Your task to perform on an android device: Go to Yahoo.com Image 0: 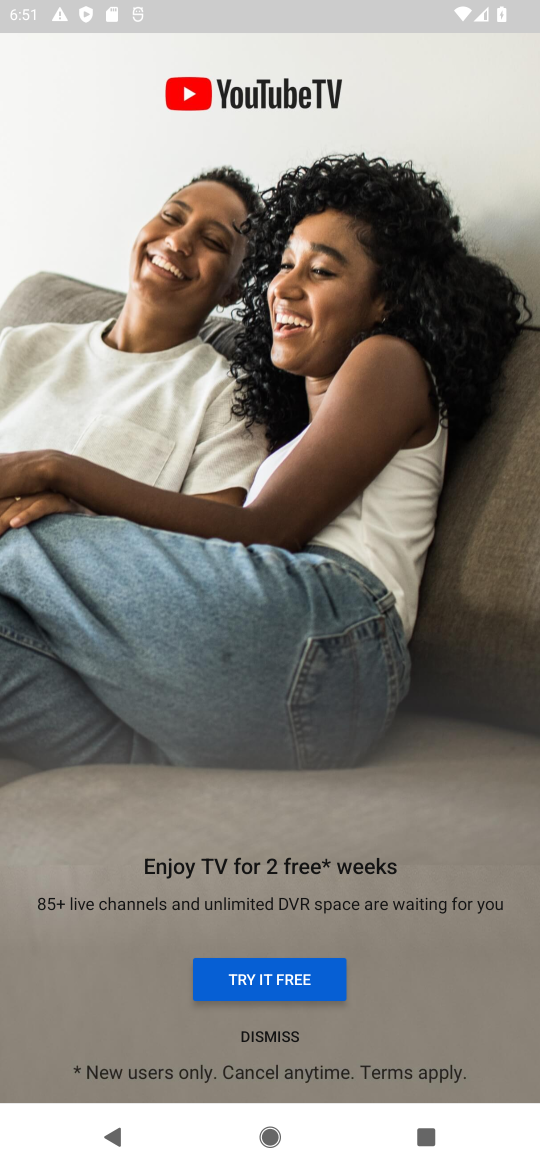
Step 0: press home button
Your task to perform on an android device: Go to Yahoo.com Image 1: 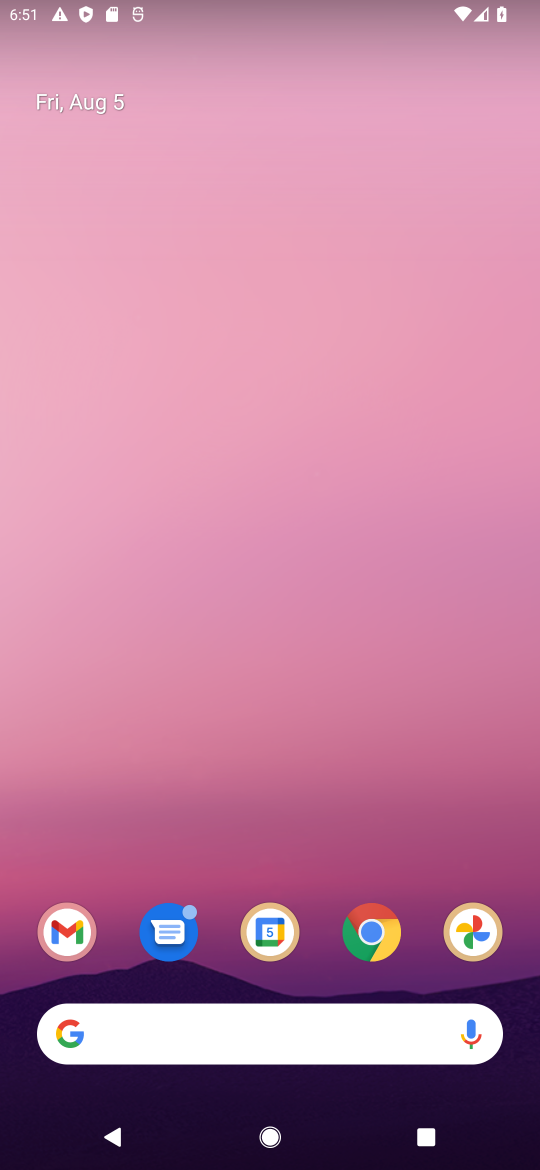
Step 1: click (373, 936)
Your task to perform on an android device: Go to Yahoo.com Image 2: 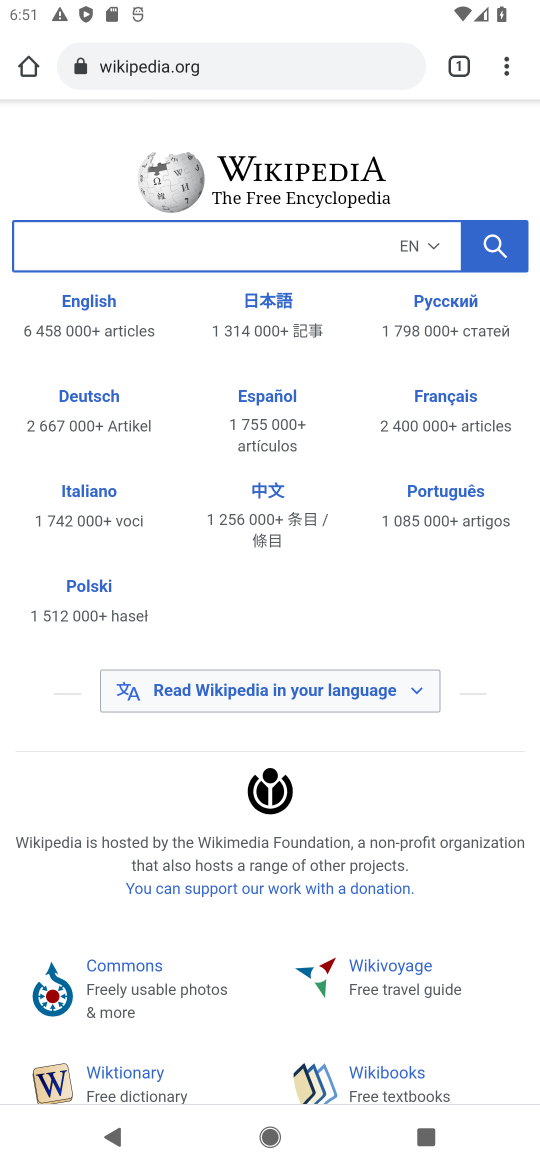
Step 2: click (326, 70)
Your task to perform on an android device: Go to Yahoo.com Image 3: 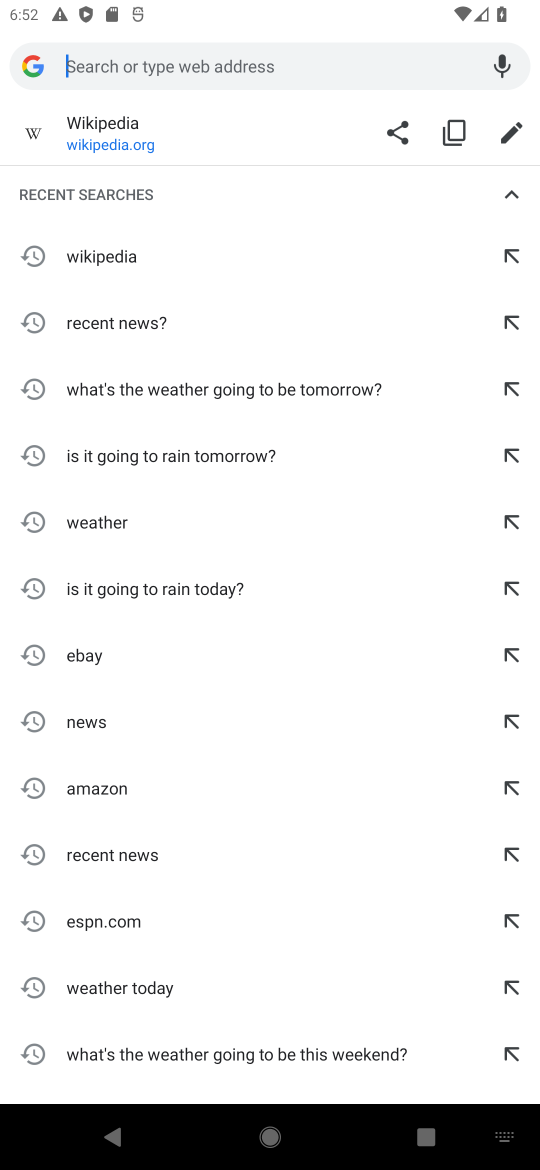
Step 3: type "Yahoo.com"
Your task to perform on an android device: Go to Yahoo.com Image 4: 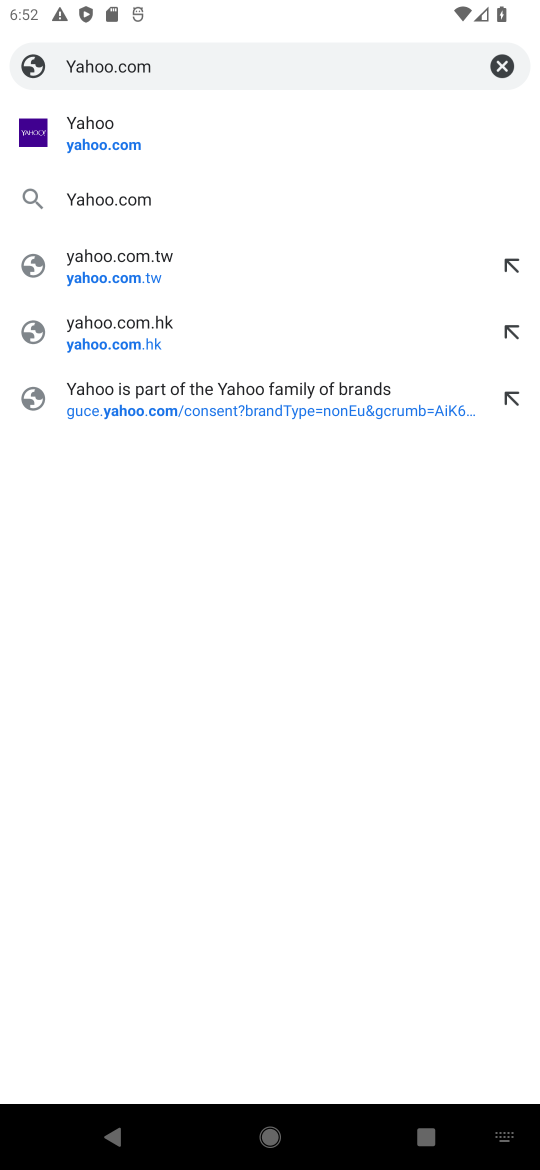
Step 4: click (137, 198)
Your task to perform on an android device: Go to Yahoo.com Image 5: 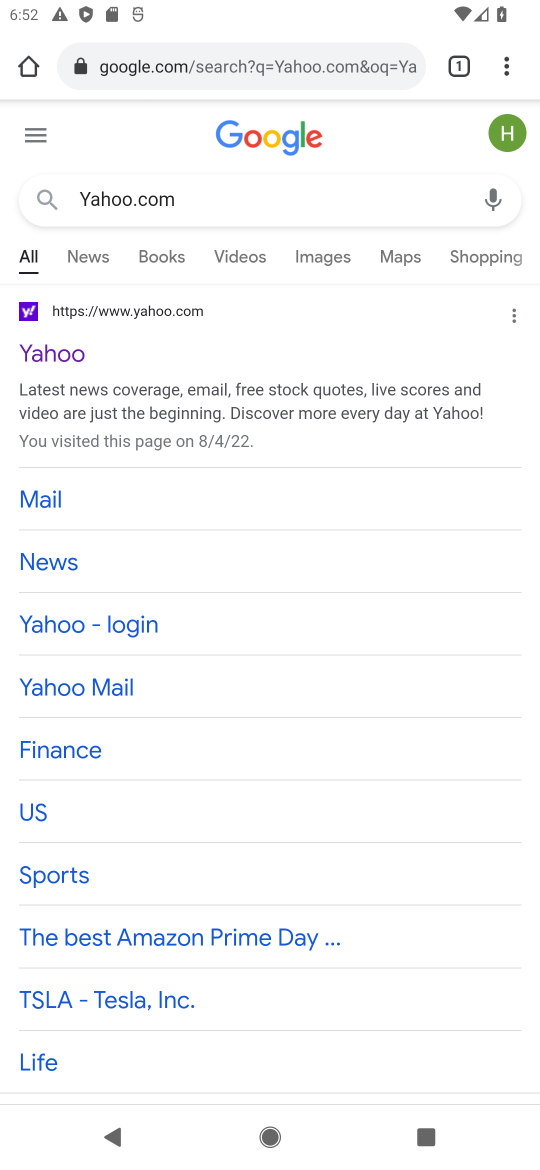
Step 5: click (69, 334)
Your task to perform on an android device: Go to Yahoo.com Image 6: 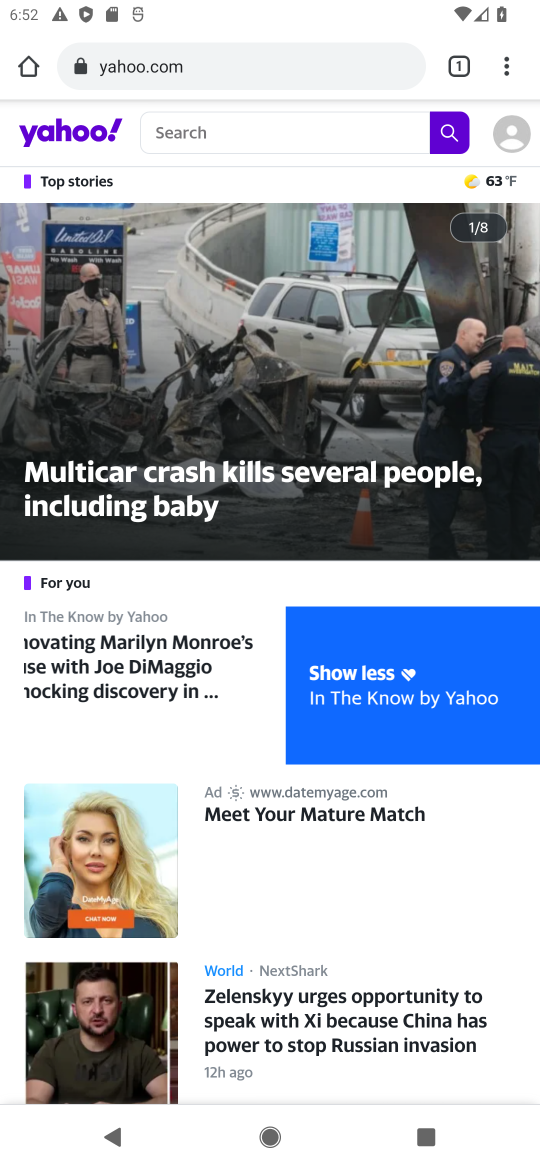
Step 6: task complete